Your task to perform on an android device: Do I have any events this weekend? Image 0: 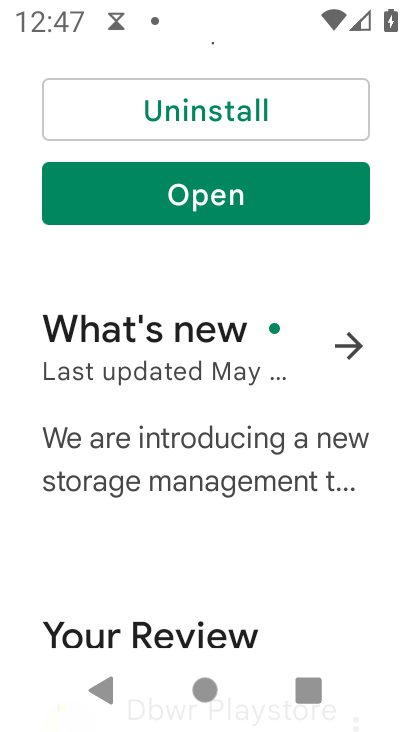
Step 0: press home button
Your task to perform on an android device: Do I have any events this weekend? Image 1: 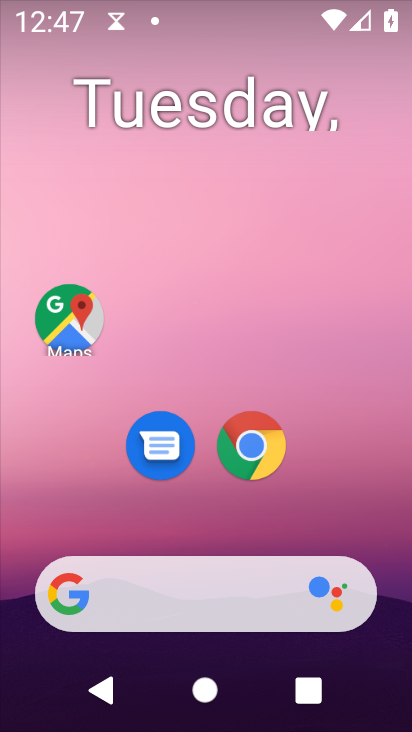
Step 1: drag from (272, 624) to (269, 1)
Your task to perform on an android device: Do I have any events this weekend? Image 2: 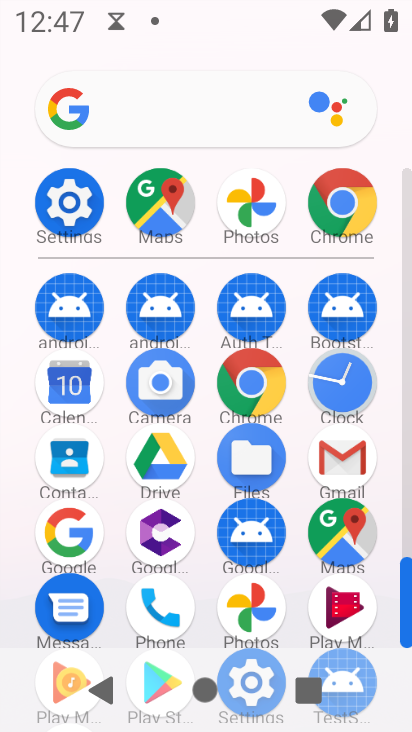
Step 2: click (252, 385)
Your task to perform on an android device: Do I have any events this weekend? Image 3: 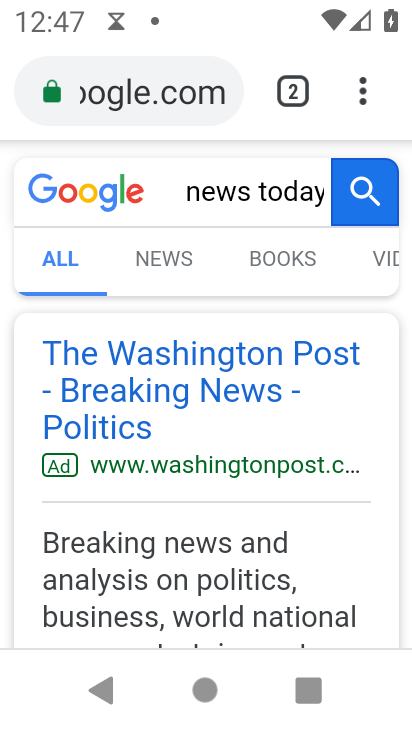
Step 3: click (220, 98)
Your task to perform on an android device: Do I have any events this weekend? Image 4: 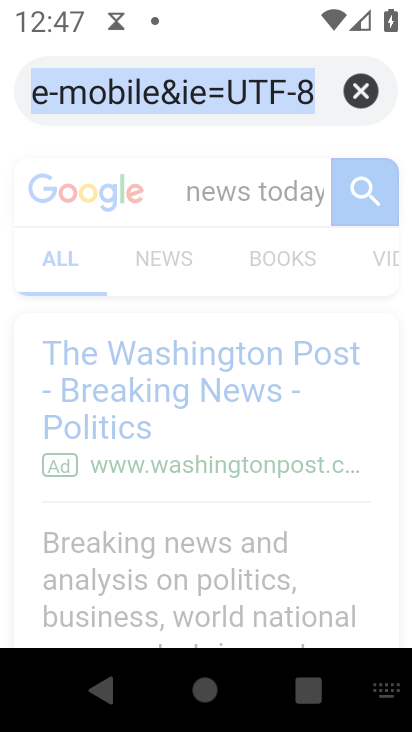
Step 4: click (353, 92)
Your task to perform on an android device: Do I have any events this weekend? Image 5: 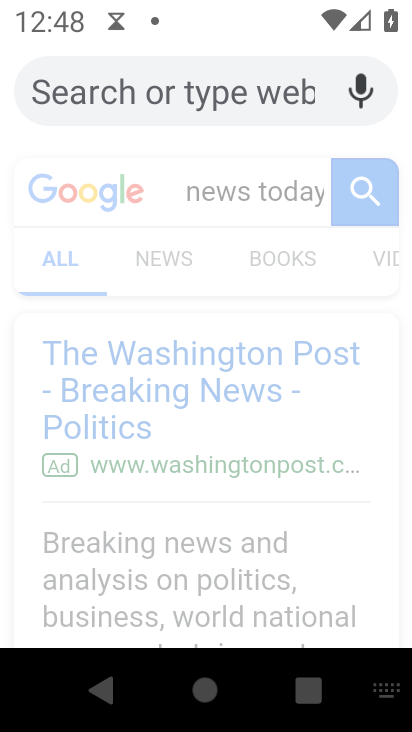
Step 5: type "event this weekend"
Your task to perform on an android device: Do I have any events this weekend? Image 6: 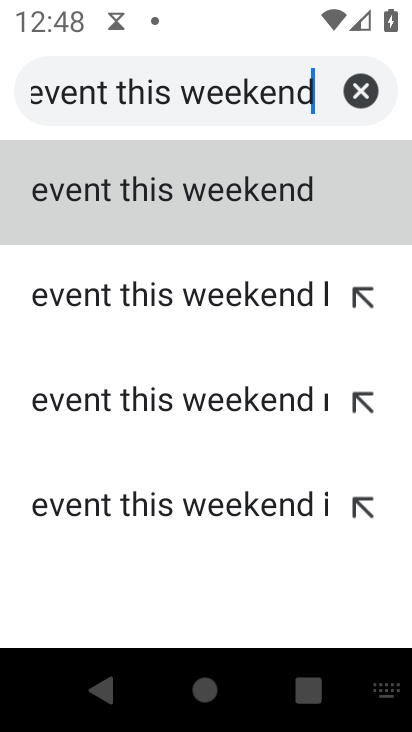
Step 6: click (176, 211)
Your task to perform on an android device: Do I have any events this weekend? Image 7: 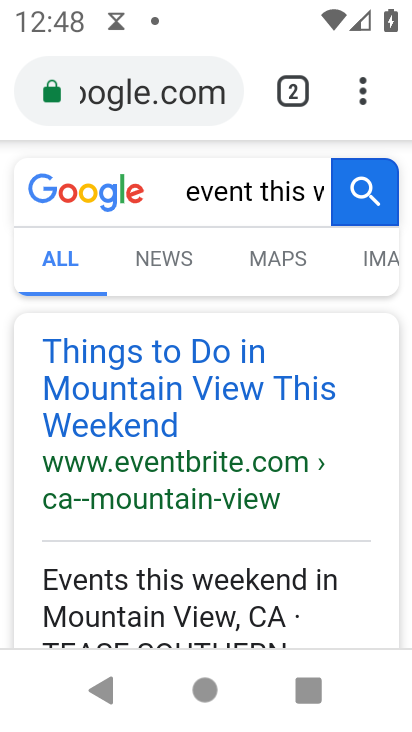
Step 7: task complete